Your task to perform on an android device: Show me the alarms in the clock app Image 0: 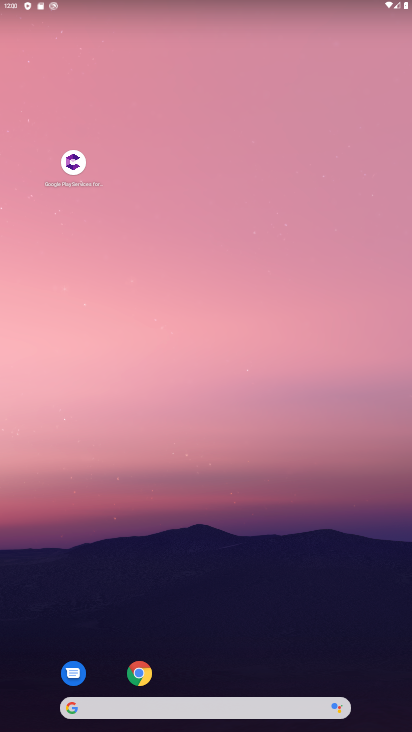
Step 0: press home button
Your task to perform on an android device: Show me the alarms in the clock app Image 1: 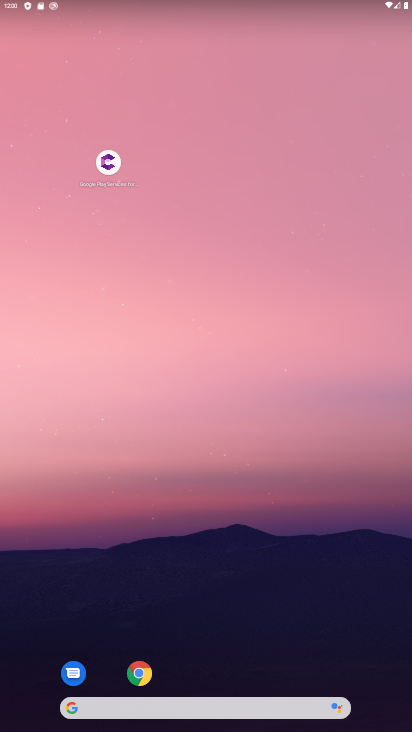
Step 1: press home button
Your task to perform on an android device: Show me the alarms in the clock app Image 2: 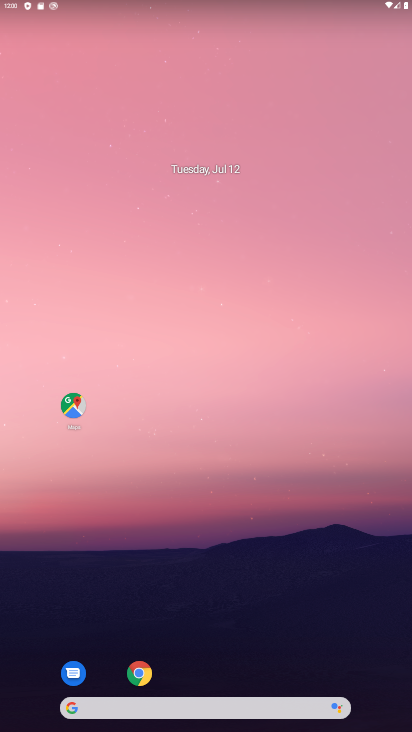
Step 2: press home button
Your task to perform on an android device: Show me the alarms in the clock app Image 3: 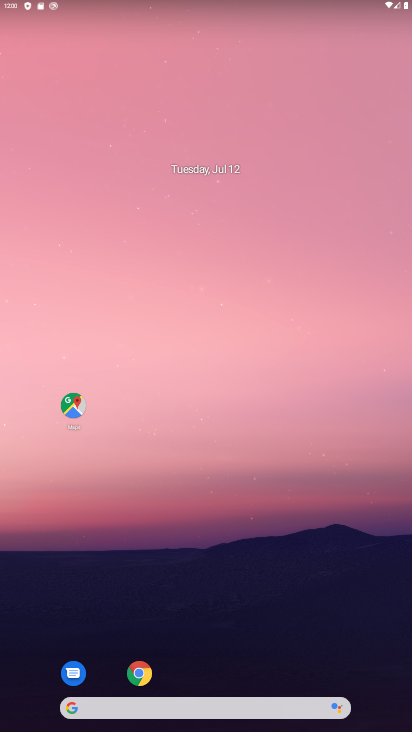
Step 3: drag from (357, 576) to (223, 104)
Your task to perform on an android device: Show me the alarms in the clock app Image 4: 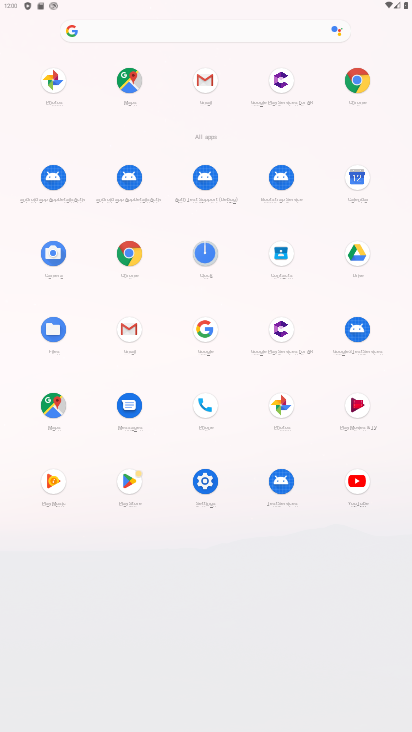
Step 4: click (202, 251)
Your task to perform on an android device: Show me the alarms in the clock app Image 5: 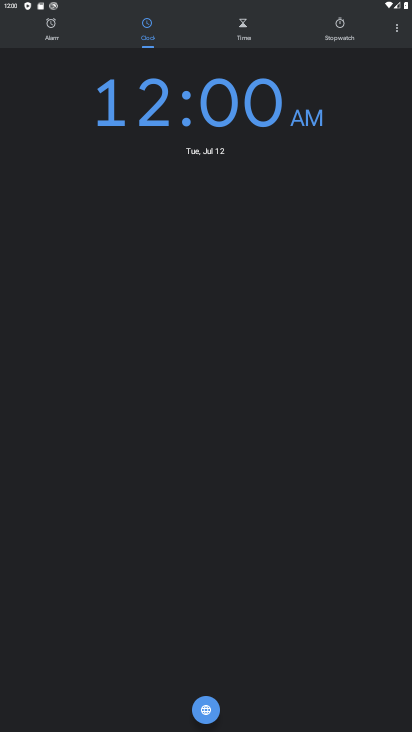
Step 5: click (59, 43)
Your task to perform on an android device: Show me the alarms in the clock app Image 6: 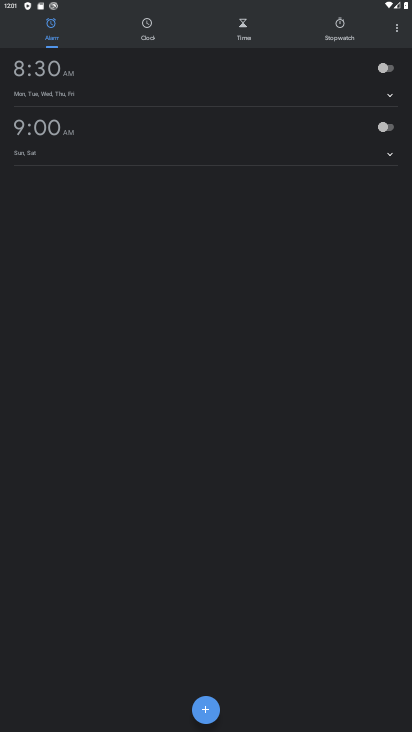
Step 6: task complete